Your task to perform on an android device: toggle javascript in the chrome app Image 0: 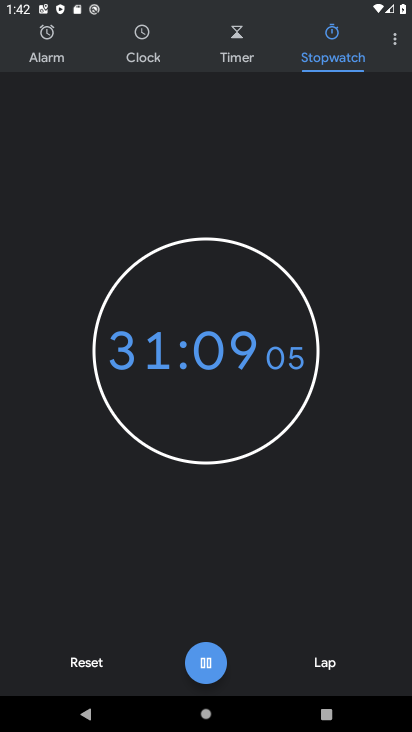
Step 0: press home button
Your task to perform on an android device: toggle javascript in the chrome app Image 1: 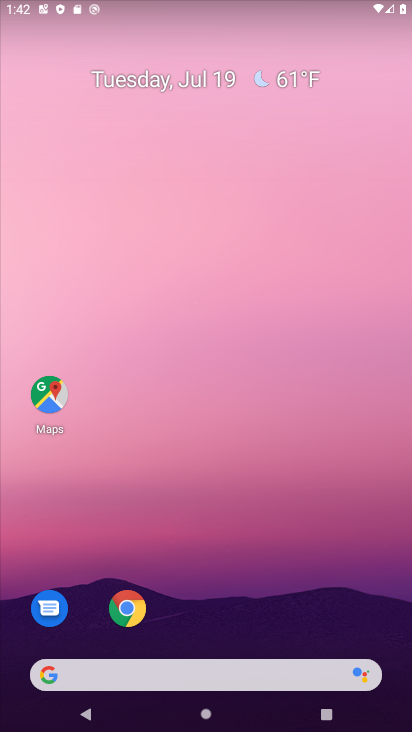
Step 1: drag from (258, 605) to (336, 0)
Your task to perform on an android device: toggle javascript in the chrome app Image 2: 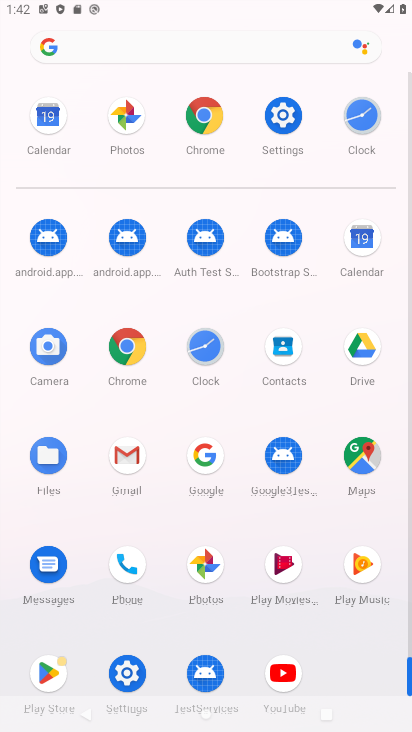
Step 2: click (207, 114)
Your task to perform on an android device: toggle javascript in the chrome app Image 3: 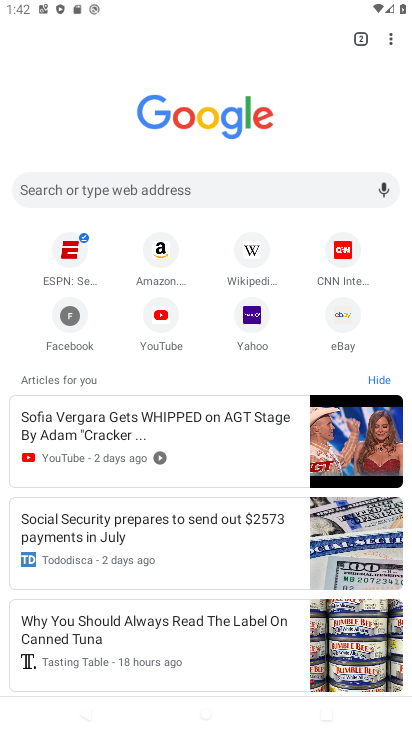
Step 3: drag from (394, 32) to (259, 331)
Your task to perform on an android device: toggle javascript in the chrome app Image 4: 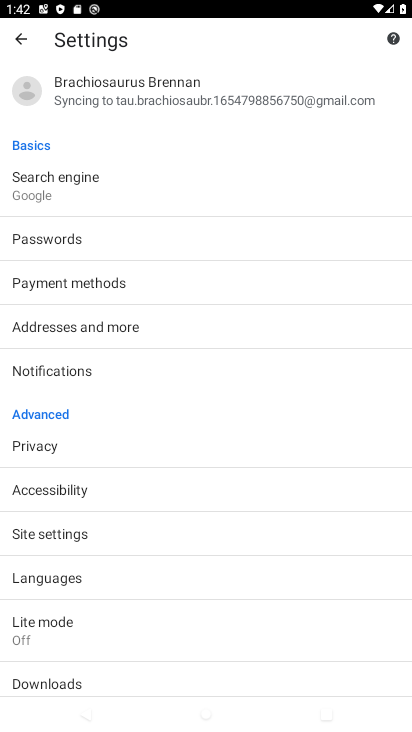
Step 4: click (68, 527)
Your task to perform on an android device: toggle javascript in the chrome app Image 5: 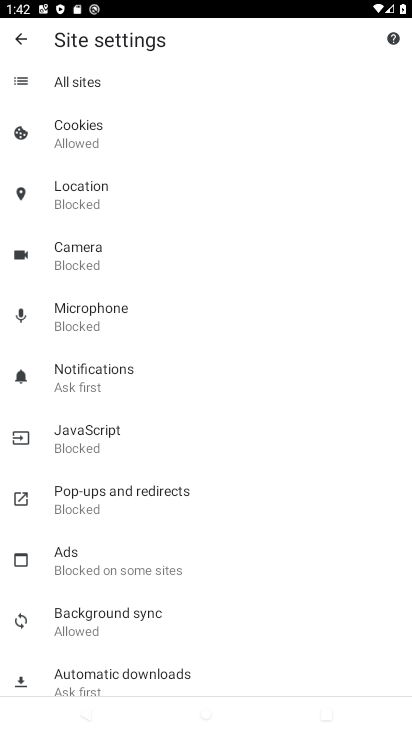
Step 5: click (94, 441)
Your task to perform on an android device: toggle javascript in the chrome app Image 6: 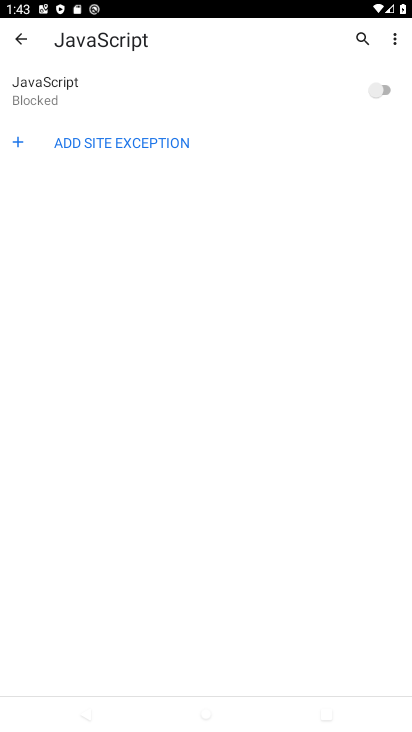
Step 6: click (369, 88)
Your task to perform on an android device: toggle javascript in the chrome app Image 7: 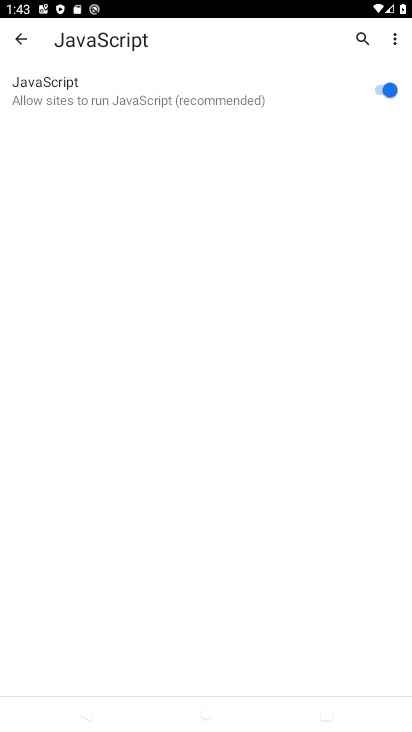
Step 7: task complete